Your task to perform on an android device: open device folders in google photos Image 0: 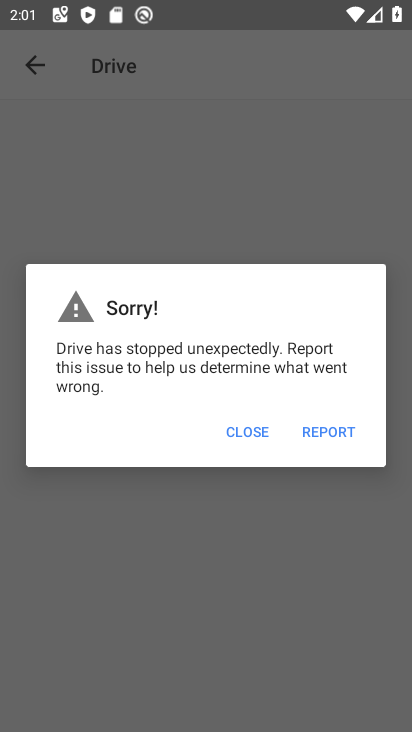
Step 0: press home button
Your task to perform on an android device: open device folders in google photos Image 1: 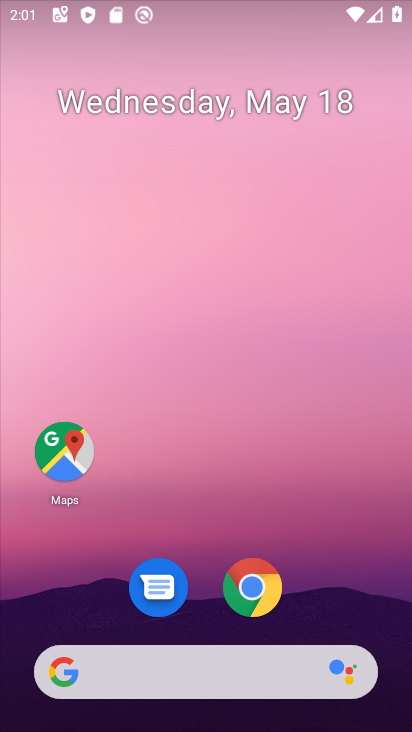
Step 1: drag from (360, 602) to (342, 3)
Your task to perform on an android device: open device folders in google photos Image 2: 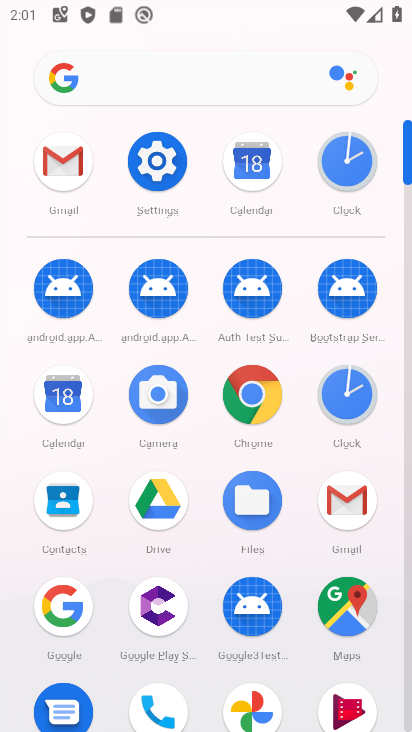
Step 2: click (243, 702)
Your task to perform on an android device: open device folders in google photos Image 3: 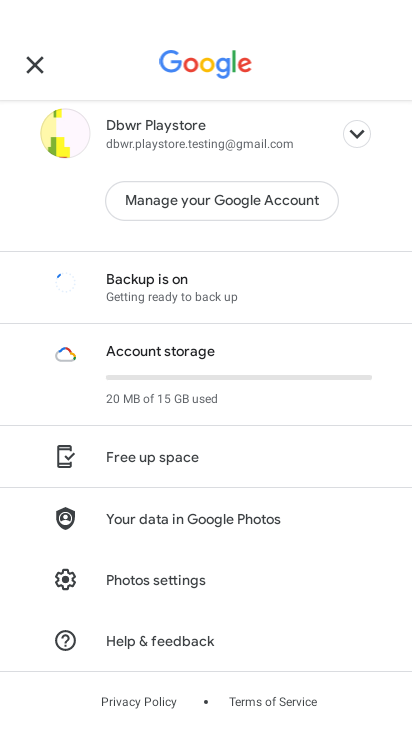
Step 3: click (30, 69)
Your task to perform on an android device: open device folders in google photos Image 4: 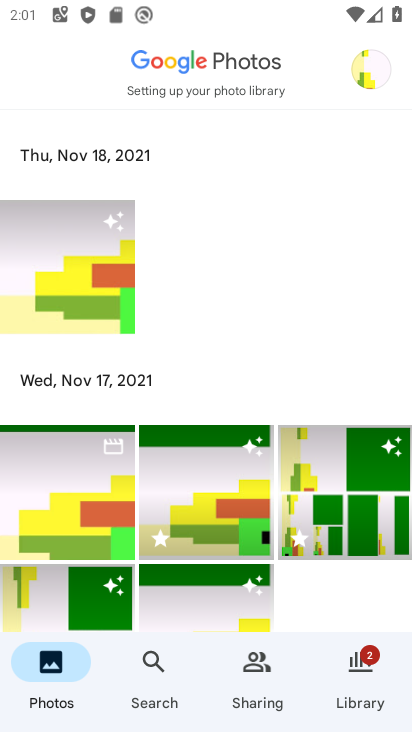
Step 4: task complete